Your task to perform on an android device: Open the stopwatch Image 0: 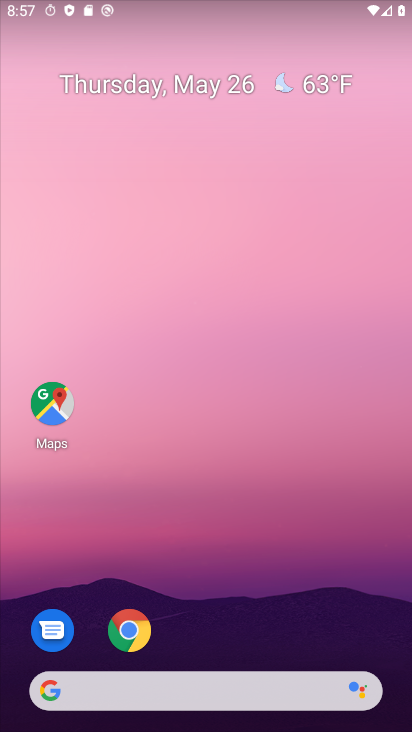
Step 0: drag from (254, 620) to (157, 222)
Your task to perform on an android device: Open the stopwatch Image 1: 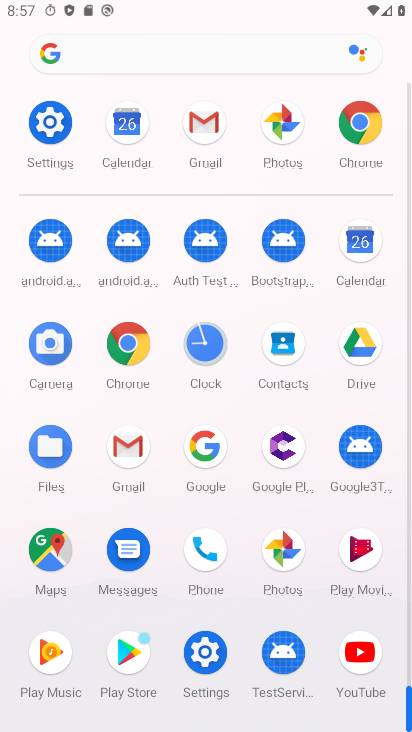
Step 1: click (200, 354)
Your task to perform on an android device: Open the stopwatch Image 2: 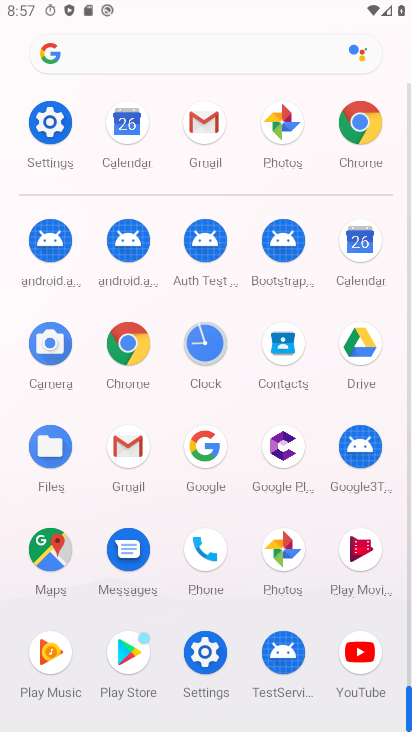
Step 2: click (201, 352)
Your task to perform on an android device: Open the stopwatch Image 3: 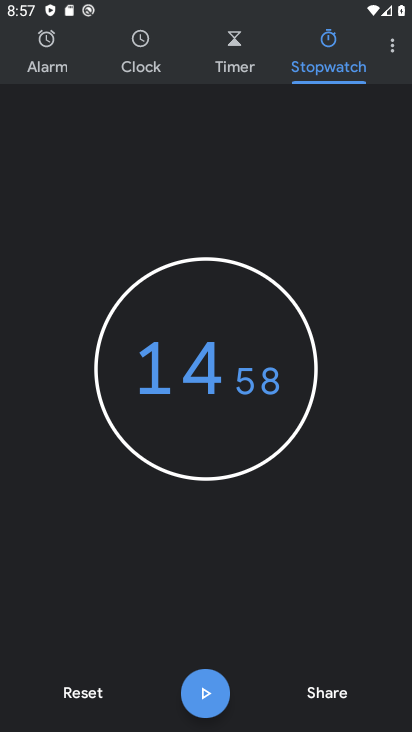
Step 3: click (205, 350)
Your task to perform on an android device: Open the stopwatch Image 4: 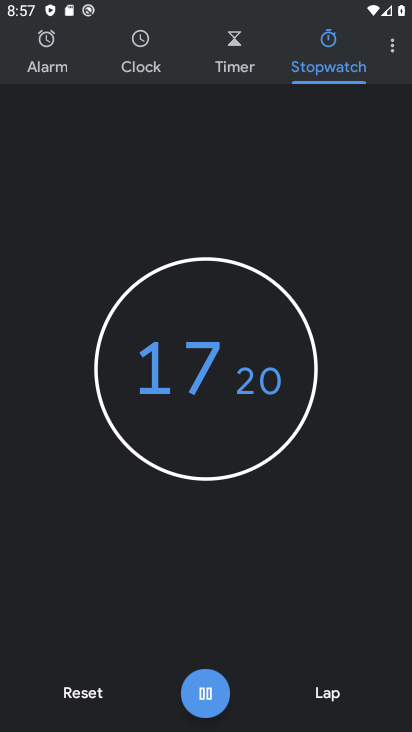
Step 4: click (197, 695)
Your task to perform on an android device: Open the stopwatch Image 5: 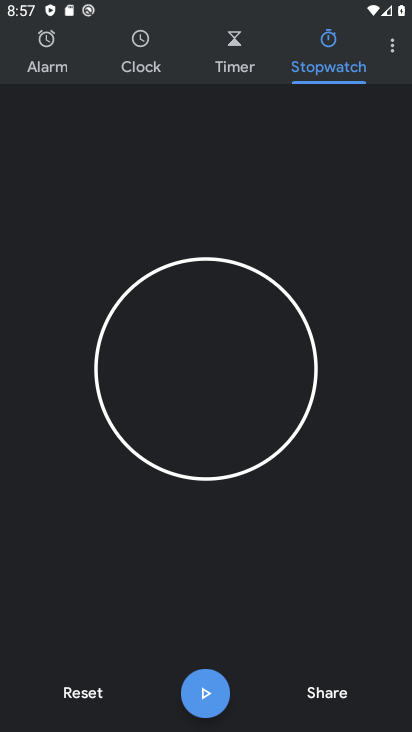
Step 5: task complete